Your task to perform on an android device: Open calendar and show me the third week of next month Image 0: 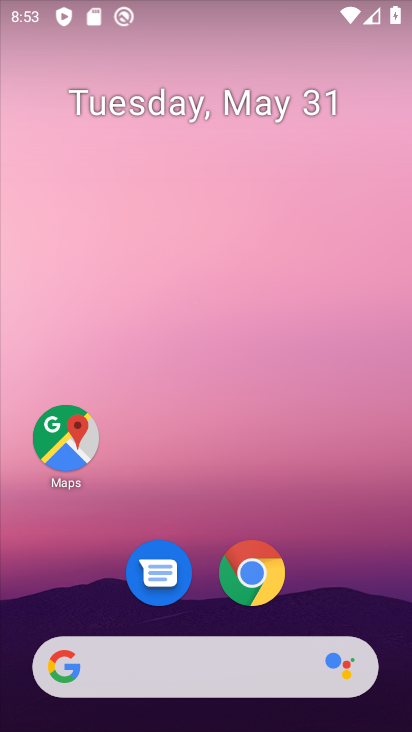
Step 0: drag from (333, 498) to (322, 82)
Your task to perform on an android device: Open calendar and show me the third week of next month Image 1: 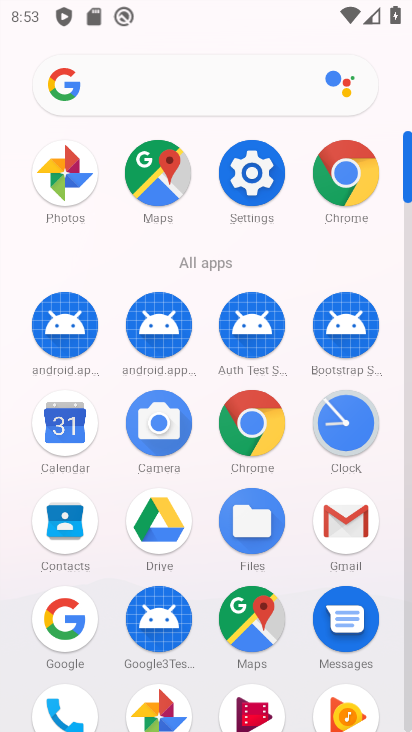
Step 1: drag from (201, 576) to (216, 440)
Your task to perform on an android device: Open calendar and show me the third week of next month Image 2: 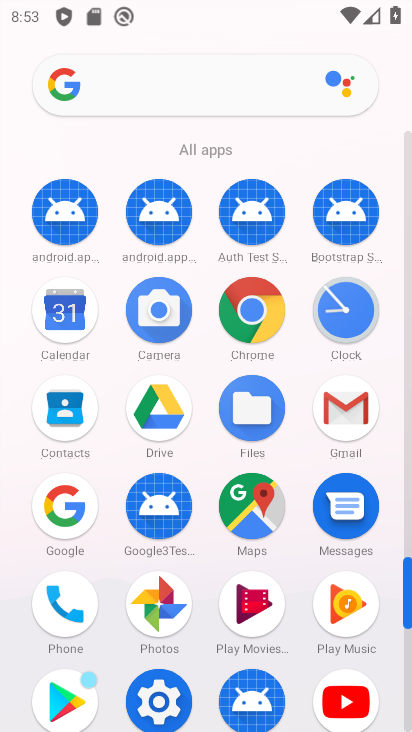
Step 2: click (71, 322)
Your task to perform on an android device: Open calendar and show me the third week of next month Image 3: 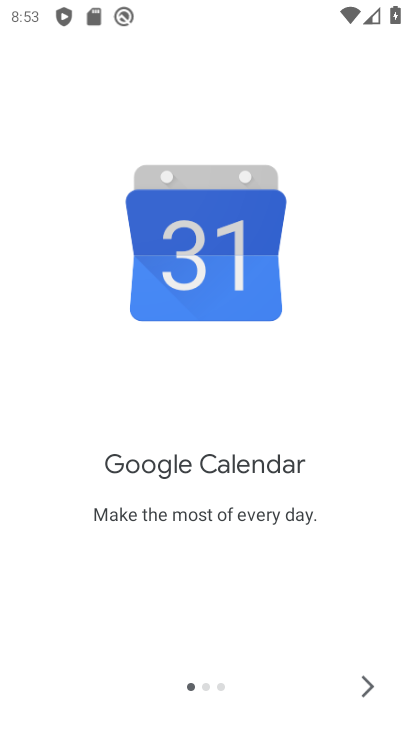
Step 3: click (366, 676)
Your task to perform on an android device: Open calendar and show me the third week of next month Image 4: 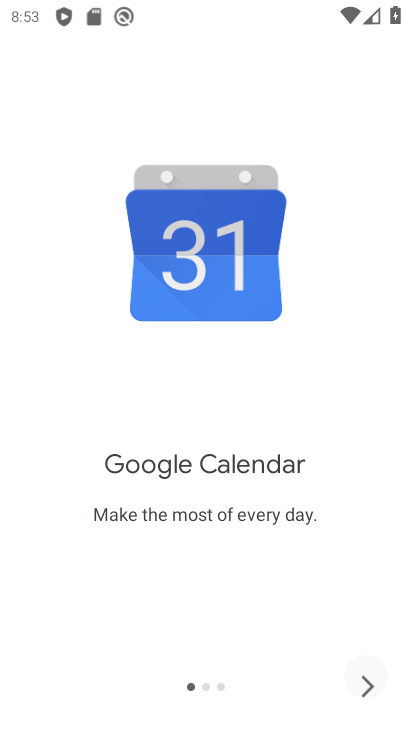
Step 4: click (366, 675)
Your task to perform on an android device: Open calendar and show me the third week of next month Image 5: 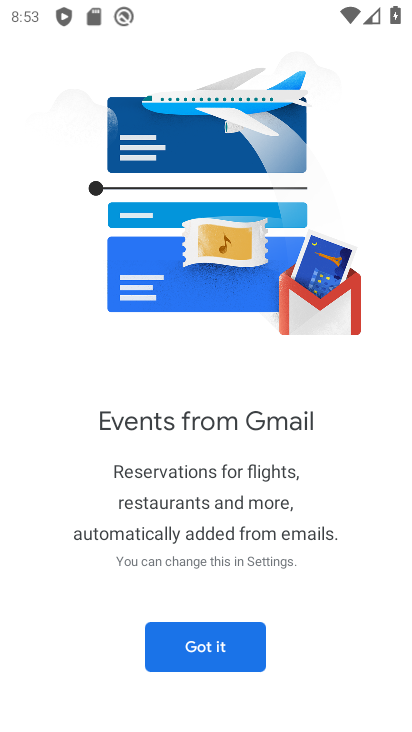
Step 5: click (226, 651)
Your task to perform on an android device: Open calendar and show me the third week of next month Image 6: 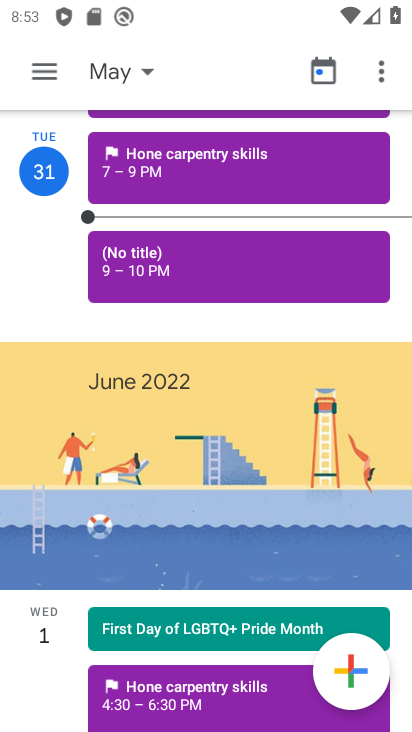
Step 6: click (122, 82)
Your task to perform on an android device: Open calendar and show me the third week of next month Image 7: 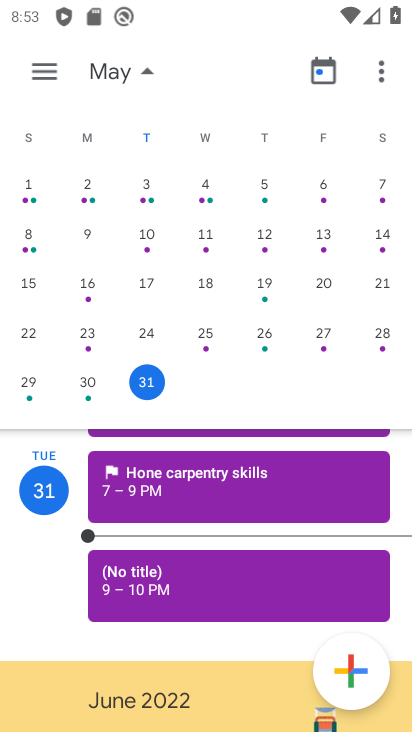
Step 7: drag from (343, 263) to (63, 257)
Your task to perform on an android device: Open calendar and show me the third week of next month Image 8: 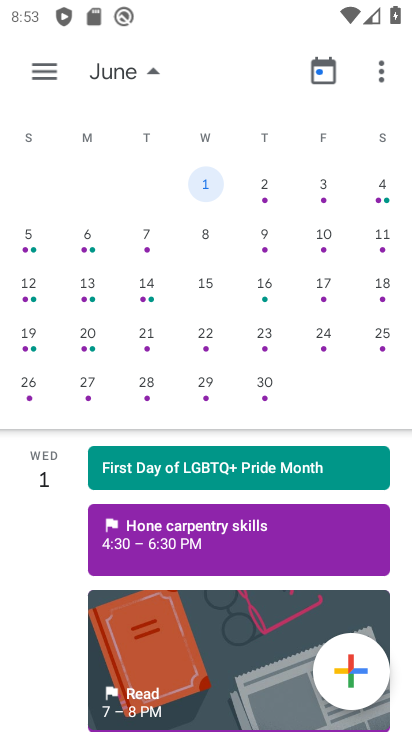
Step 8: click (35, 343)
Your task to perform on an android device: Open calendar and show me the third week of next month Image 9: 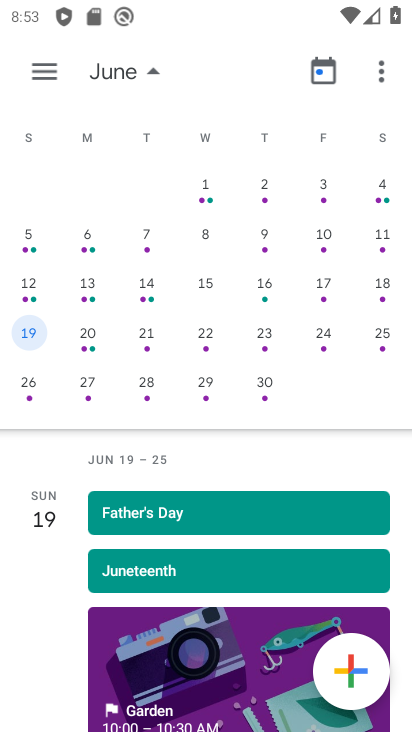
Step 9: click (37, 65)
Your task to perform on an android device: Open calendar and show me the third week of next month Image 10: 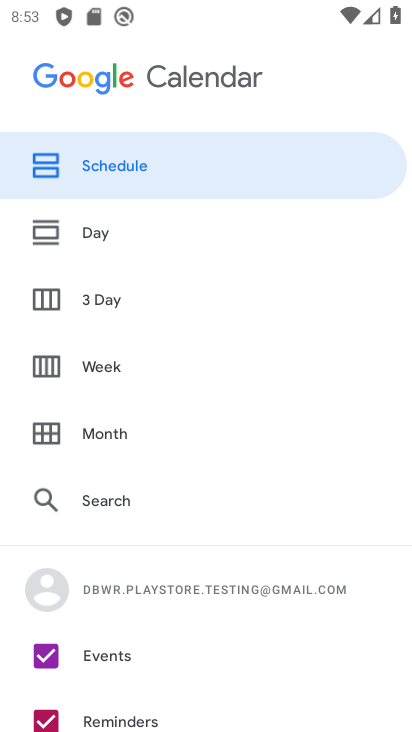
Step 10: click (96, 358)
Your task to perform on an android device: Open calendar and show me the third week of next month Image 11: 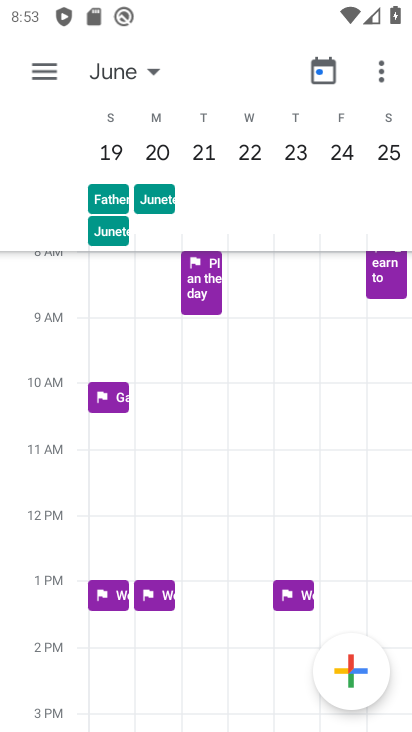
Step 11: task complete